Your task to perform on an android device: check battery use Image 0: 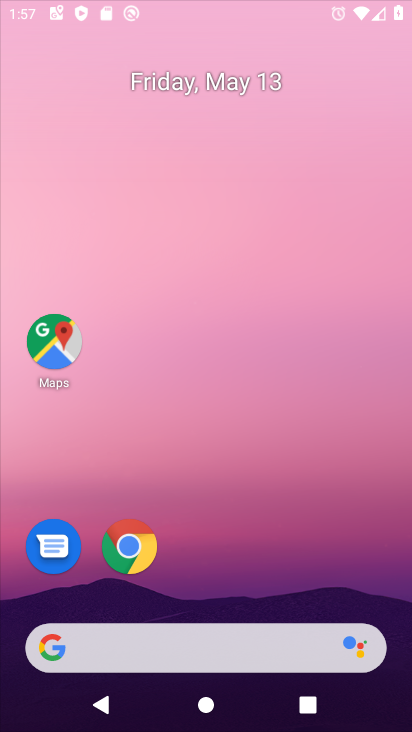
Step 0: press home button
Your task to perform on an android device: check battery use Image 1: 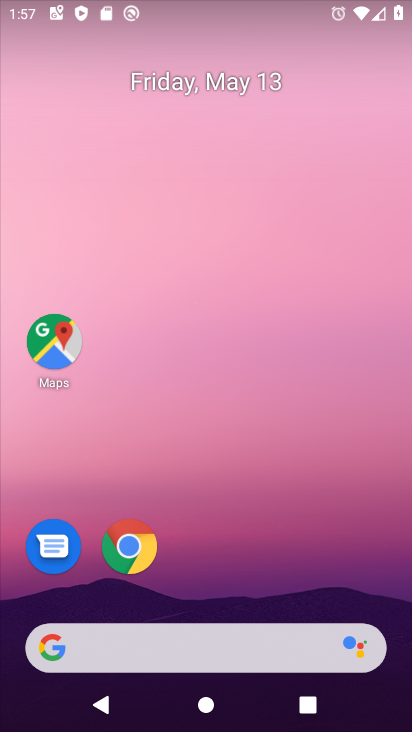
Step 1: drag from (221, 523) to (327, 18)
Your task to perform on an android device: check battery use Image 2: 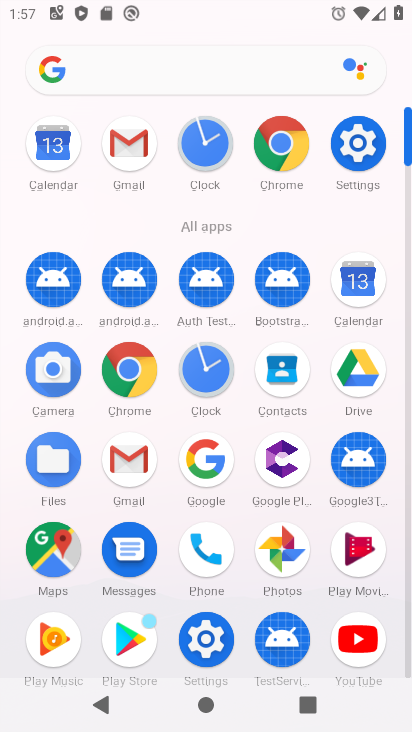
Step 2: click (353, 155)
Your task to perform on an android device: check battery use Image 3: 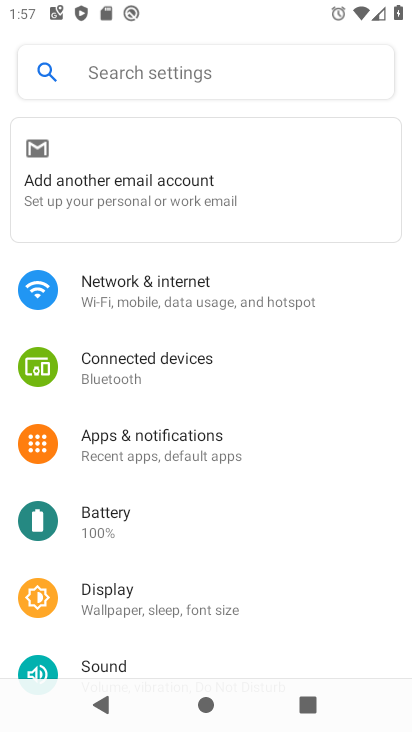
Step 3: drag from (208, 630) to (298, 225)
Your task to perform on an android device: check battery use Image 4: 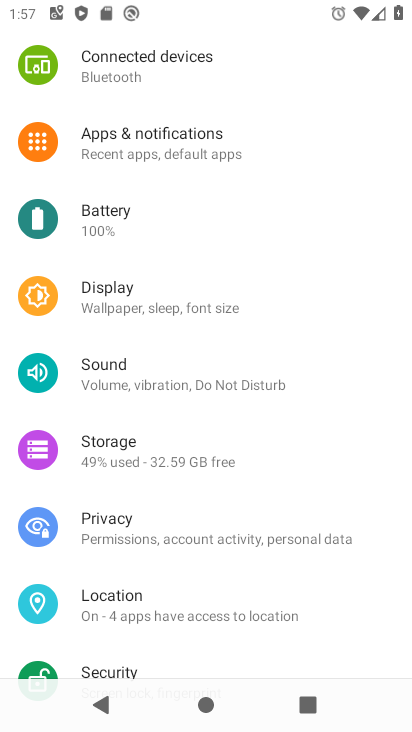
Step 4: click (122, 231)
Your task to perform on an android device: check battery use Image 5: 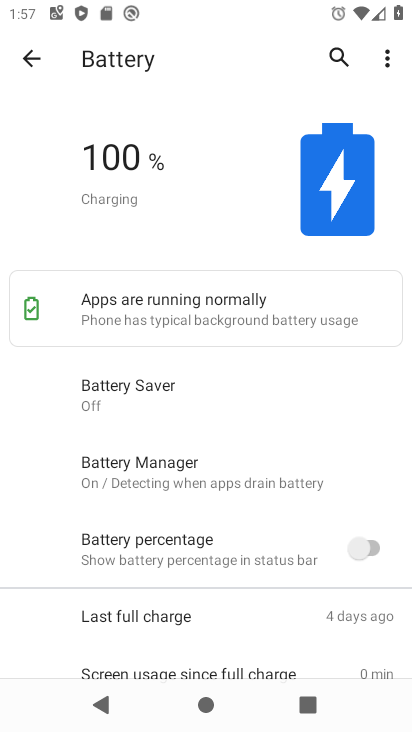
Step 5: click (388, 45)
Your task to perform on an android device: check battery use Image 6: 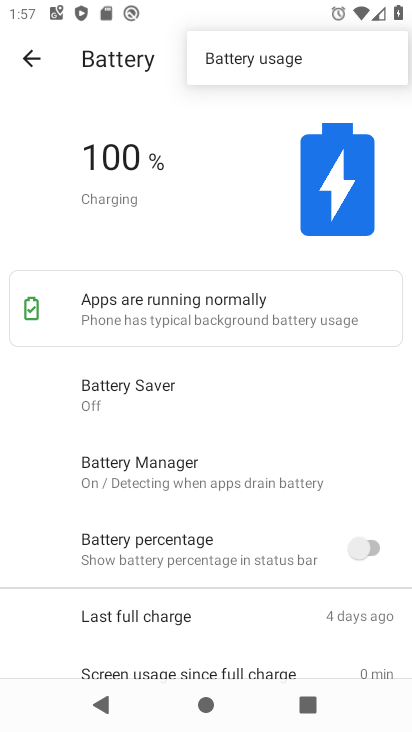
Step 6: click (262, 76)
Your task to perform on an android device: check battery use Image 7: 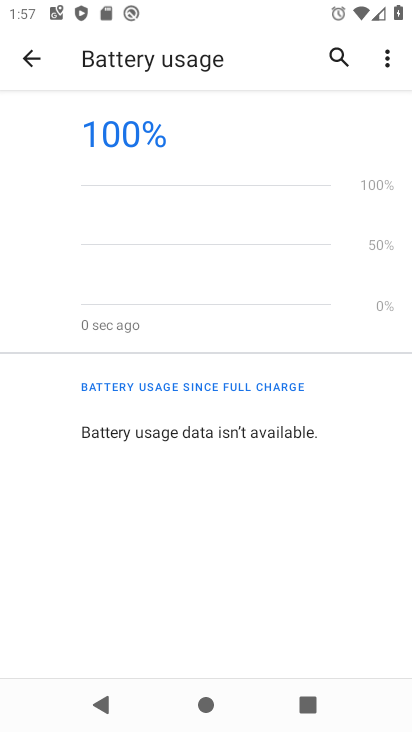
Step 7: task complete